Your task to perform on an android device: Clear the cart on amazon. Add "bose soundlink mini" to the cart on amazon, then select checkout. Image 0: 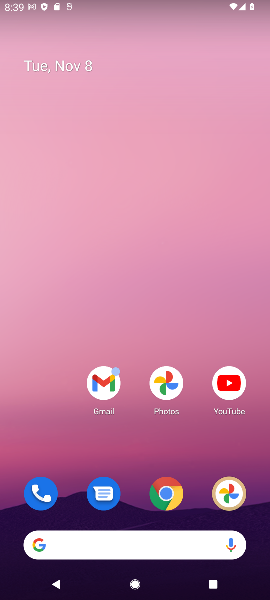
Step 0: click (165, 503)
Your task to perform on an android device: Clear the cart on amazon. Add "bose soundlink mini" to the cart on amazon, then select checkout. Image 1: 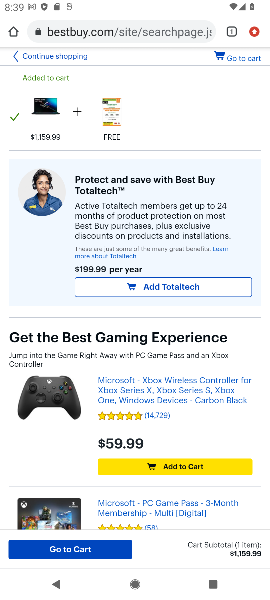
Step 1: click (85, 36)
Your task to perform on an android device: Clear the cart on amazon. Add "bose soundlink mini" to the cart on amazon, then select checkout. Image 2: 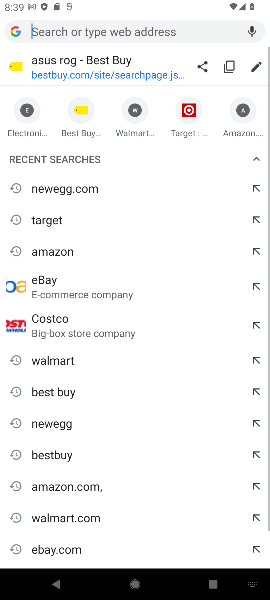
Step 2: click (245, 128)
Your task to perform on an android device: Clear the cart on amazon. Add "bose soundlink mini" to the cart on amazon, then select checkout. Image 3: 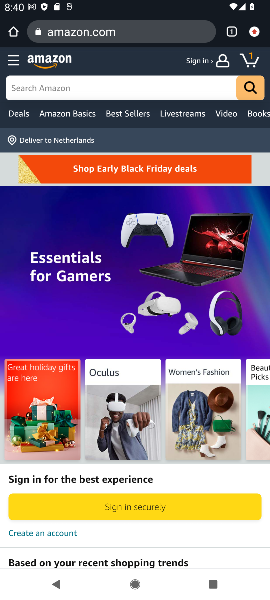
Step 3: click (251, 61)
Your task to perform on an android device: Clear the cart on amazon. Add "bose soundlink mini" to the cart on amazon, then select checkout. Image 4: 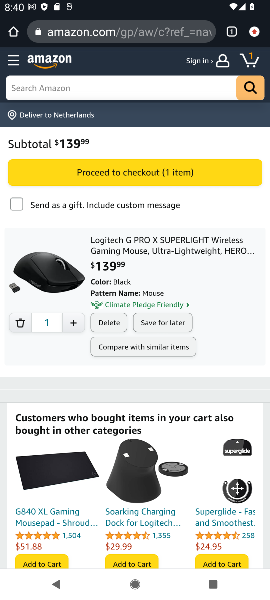
Step 4: click (110, 323)
Your task to perform on an android device: Clear the cart on amazon. Add "bose soundlink mini" to the cart on amazon, then select checkout. Image 5: 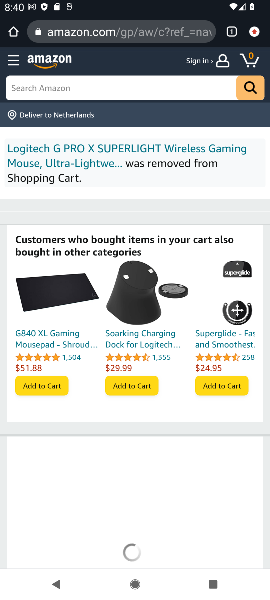
Step 5: click (72, 96)
Your task to perform on an android device: Clear the cart on amazon. Add "bose soundlink mini" to the cart on amazon, then select checkout. Image 6: 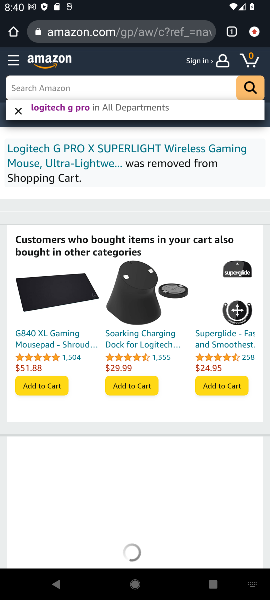
Step 6: type "bose soundlink mini"
Your task to perform on an android device: Clear the cart on amazon. Add "bose soundlink mini" to the cart on amazon, then select checkout. Image 7: 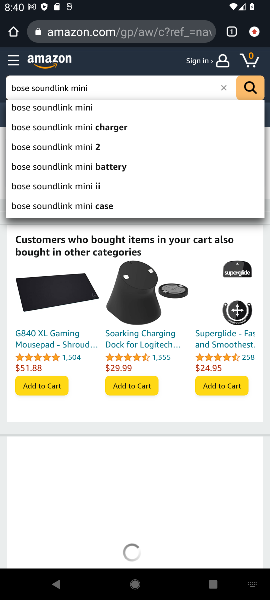
Step 7: click (58, 104)
Your task to perform on an android device: Clear the cart on amazon. Add "bose soundlink mini" to the cart on amazon, then select checkout. Image 8: 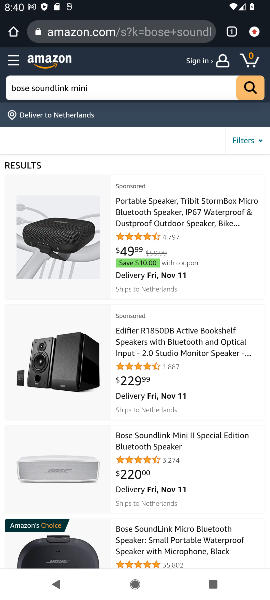
Step 8: click (77, 459)
Your task to perform on an android device: Clear the cart on amazon. Add "bose soundlink mini" to the cart on amazon, then select checkout. Image 9: 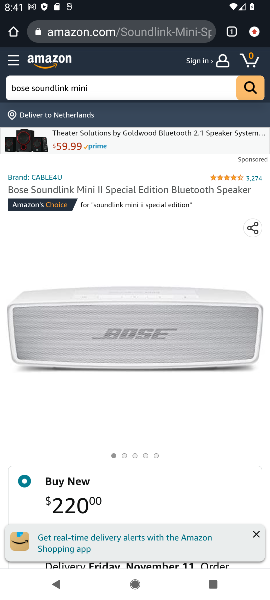
Step 9: drag from (111, 429) to (121, 206)
Your task to perform on an android device: Clear the cart on amazon. Add "bose soundlink mini" to the cart on amazon, then select checkout. Image 10: 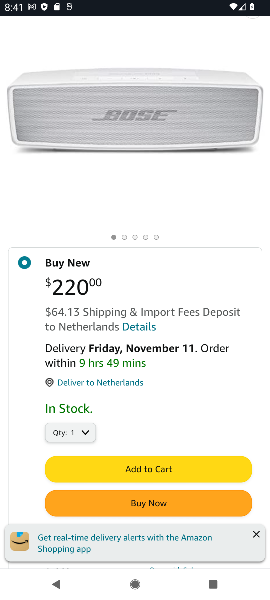
Step 10: click (144, 466)
Your task to perform on an android device: Clear the cart on amazon. Add "bose soundlink mini" to the cart on amazon, then select checkout. Image 11: 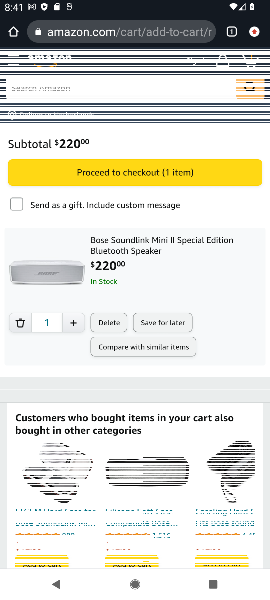
Step 11: click (121, 176)
Your task to perform on an android device: Clear the cart on amazon. Add "bose soundlink mini" to the cart on amazon, then select checkout. Image 12: 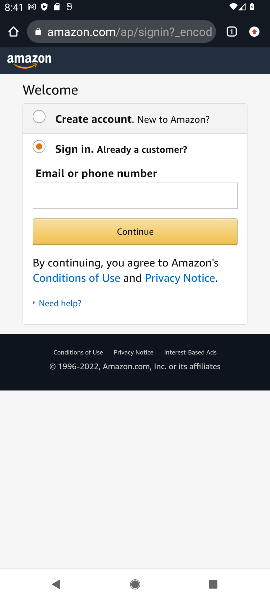
Step 12: task complete